Your task to perform on an android device: change notifications settings Image 0: 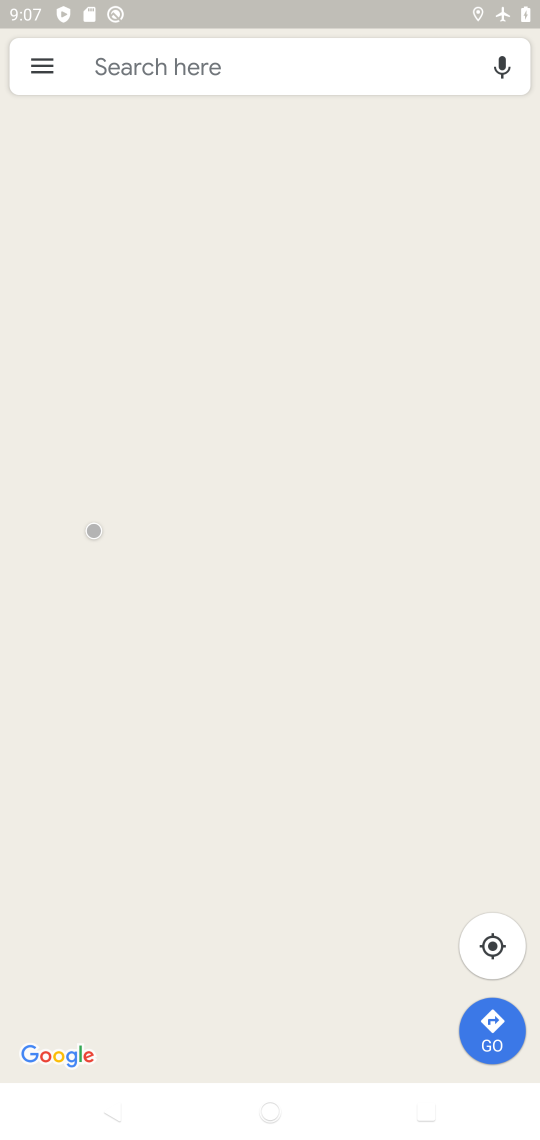
Step 0: press back button
Your task to perform on an android device: change notifications settings Image 1: 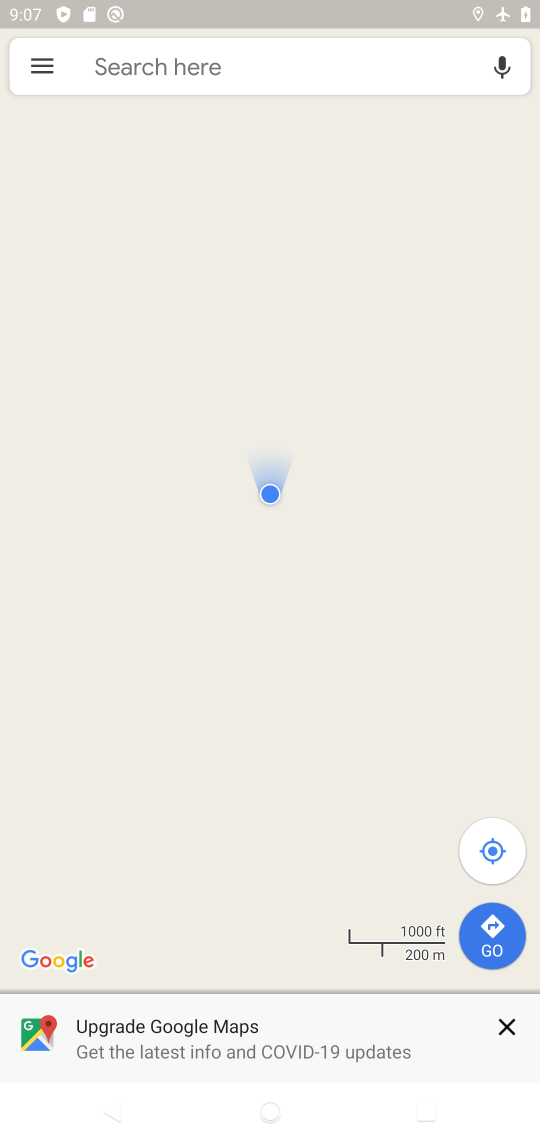
Step 1: press back button
Your task to perform on an android device: change notifications settings Image 2: 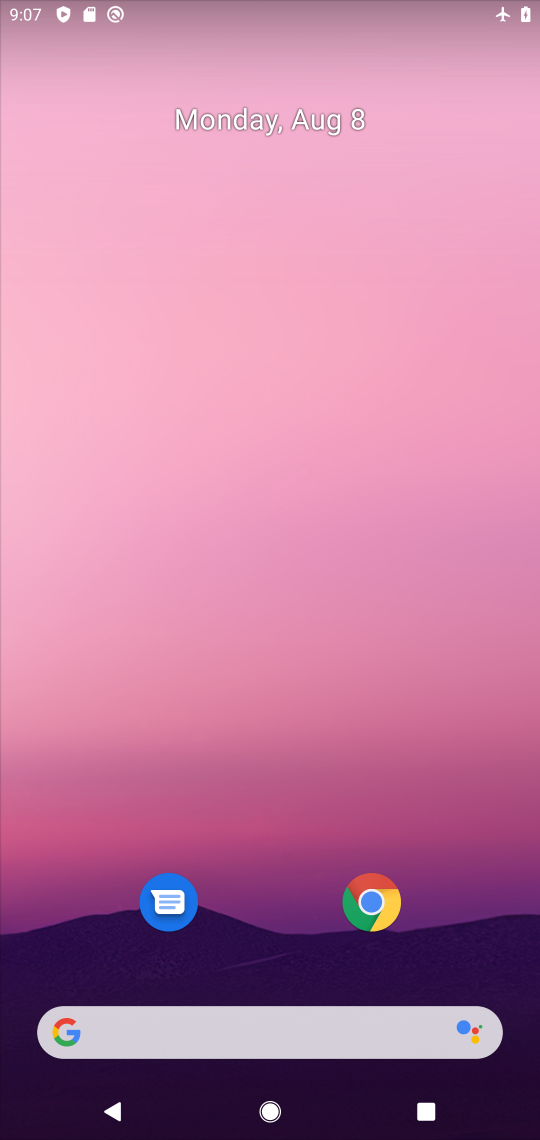
Step 2: press back button
Your task to perform on an android device: change notifications settings Image 3: 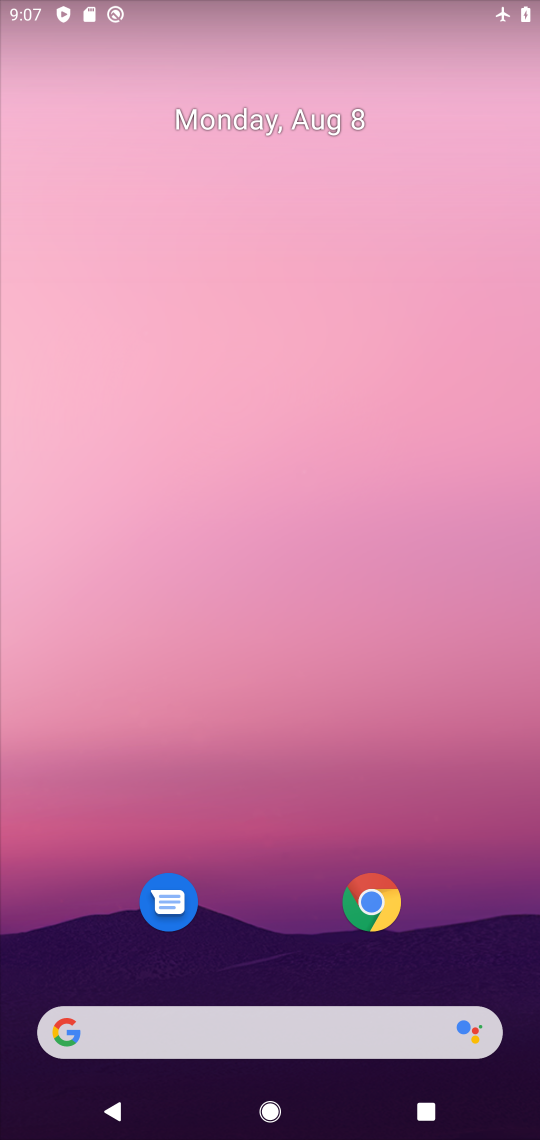
Step 3: drag from (270, 981) to (319, 110)
Your task to perform on an android device: change notifications settings Image 4: 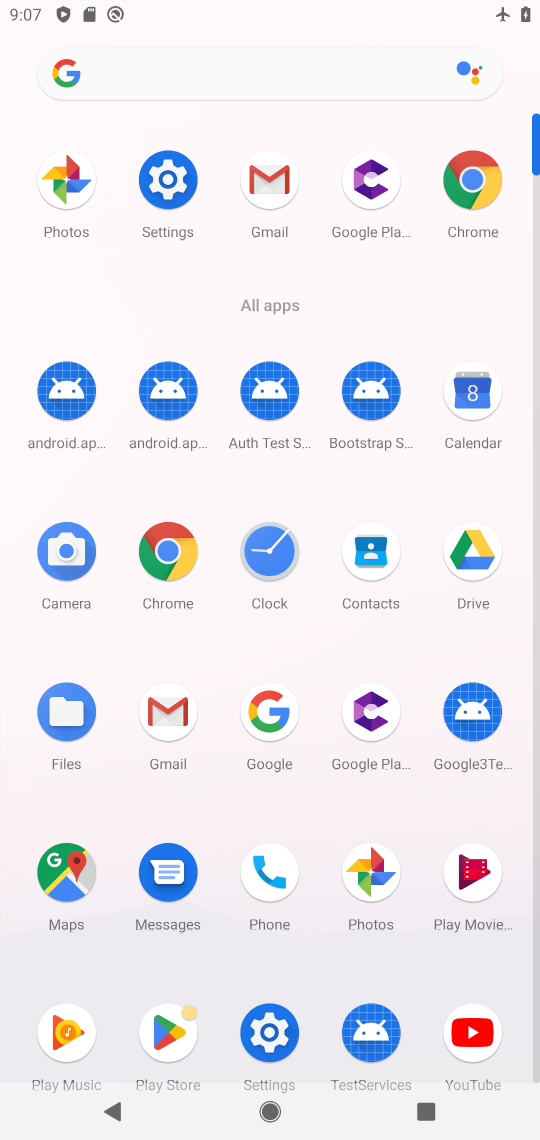
Step 4: click (177, 187)
Your task to perform on an android device: change notifications settings Image 5: 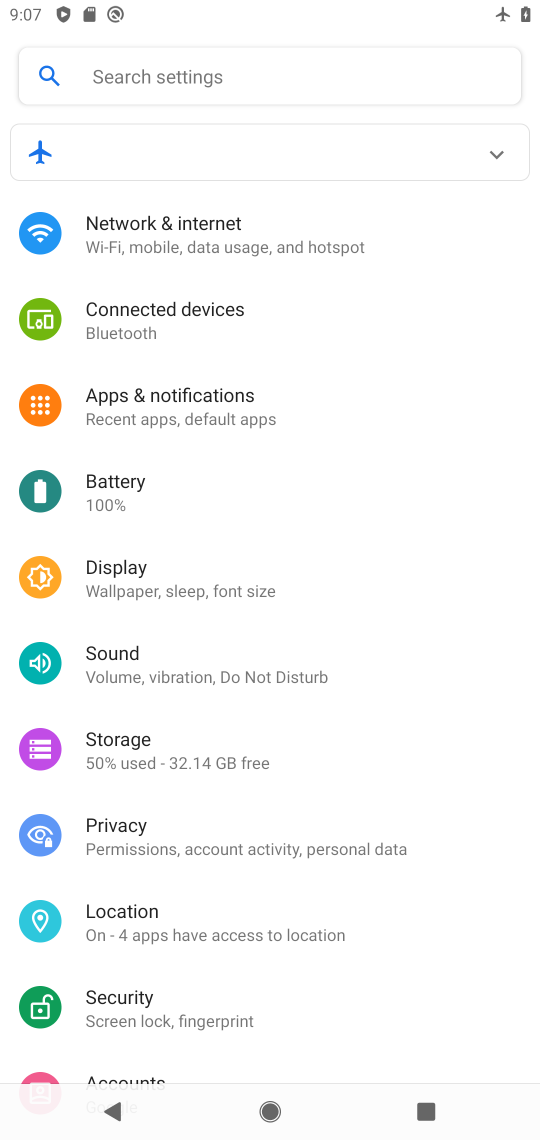
Step 5: click (260, 405)
Your task to perform on an android device: change notifications settings Image 6: 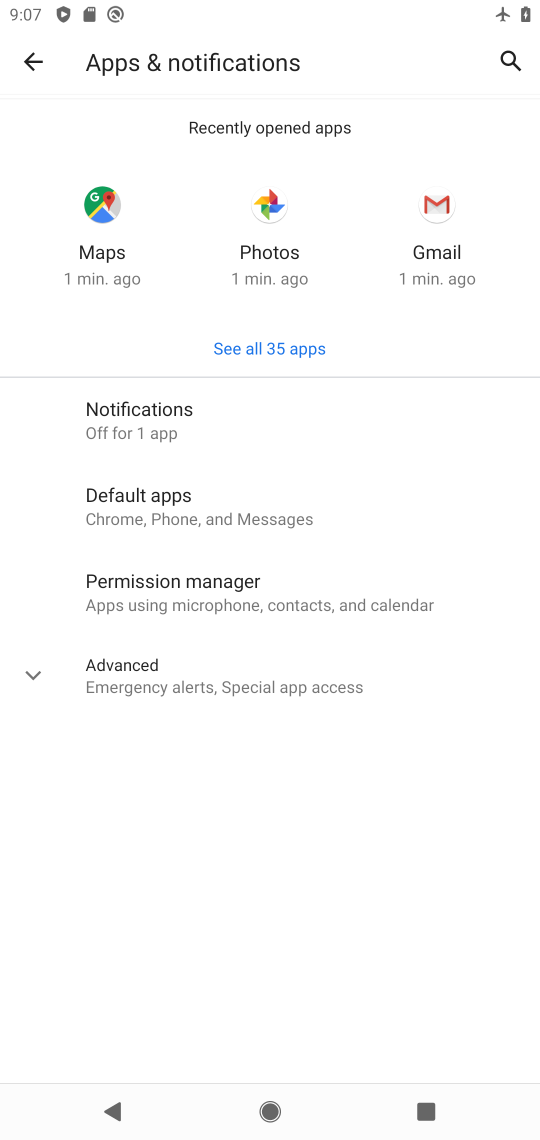
Step 6: click (300, 405)
Your task to perform on an android device: change notifications settings Image 7: 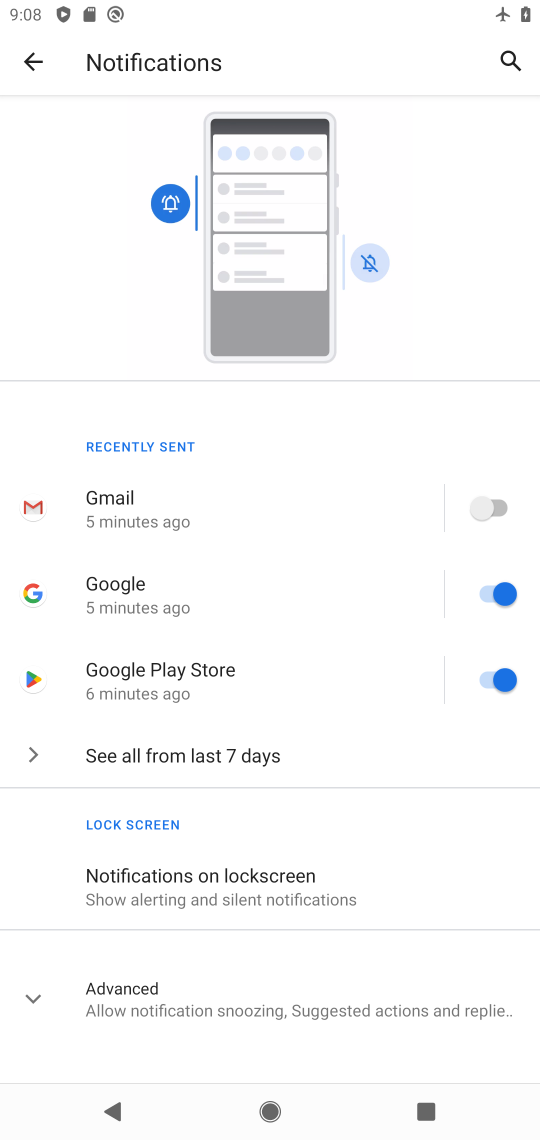
Step 7: task complete